Your task to perform on an android device: turn off picture-in-picture Image 0: 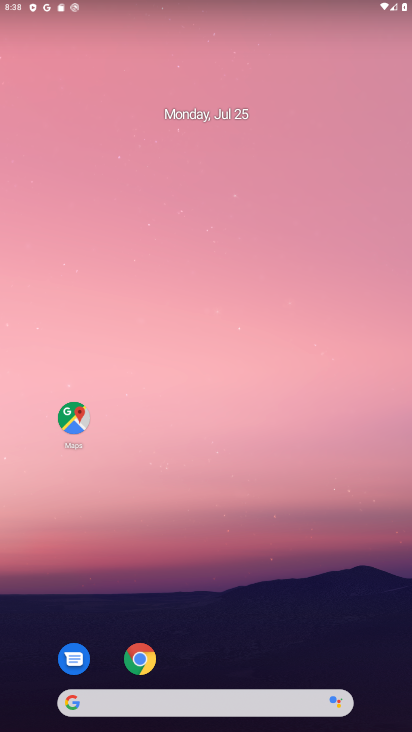
Step 0: click (133, 667)
Your task to perform on an android device: turn off picture-in-picture Image 1: 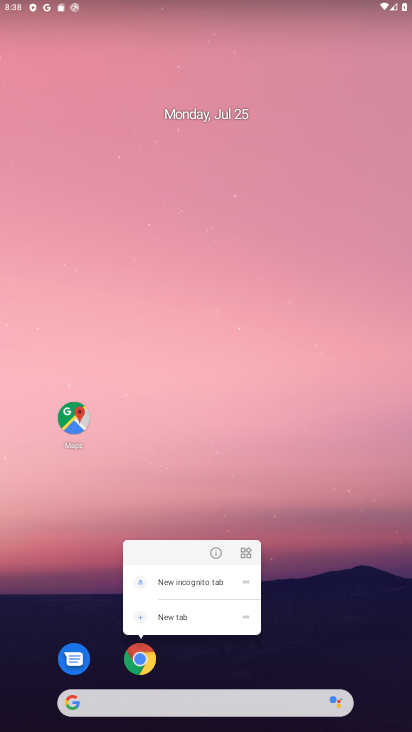
Step 1: click (217, 554)
Your task to perform on an android device: turn off picture-in-picture Image 2: 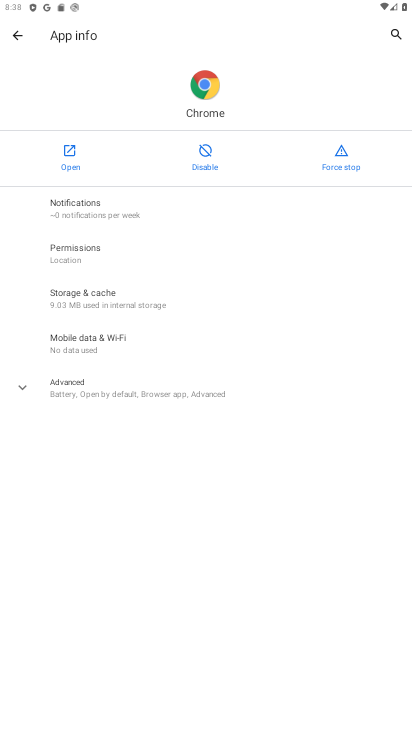
Step 2: click (145, 375)
Your task to perform on an android device: turn off picture-in-picture Image 3: 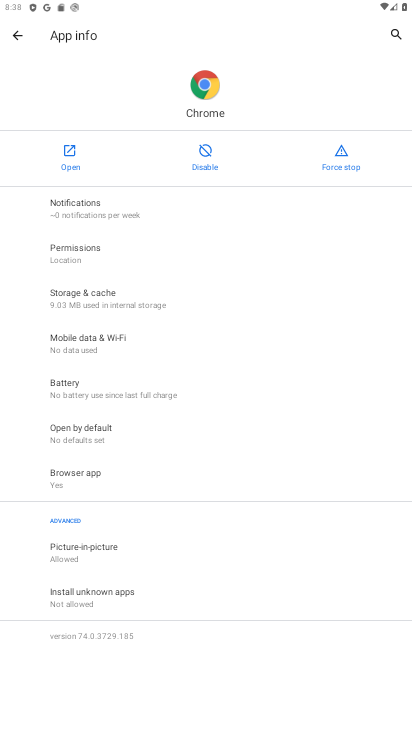
Step 3: click (158, 545)
Your task to perform on an android device: turn off picture-in-picture Image 4: 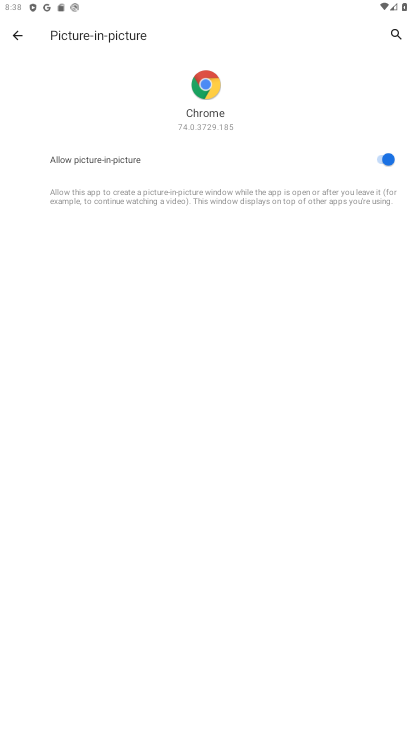
Step 4: click (388, 159)
Your task to perform on an android device: turn off picture-in-picture Image 5: 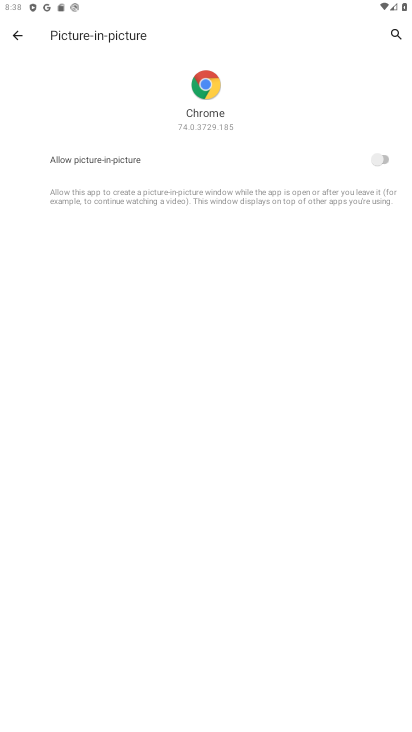
Step 5: task complete